Your task to perform on an android device: Open accessibility settings Image 0: 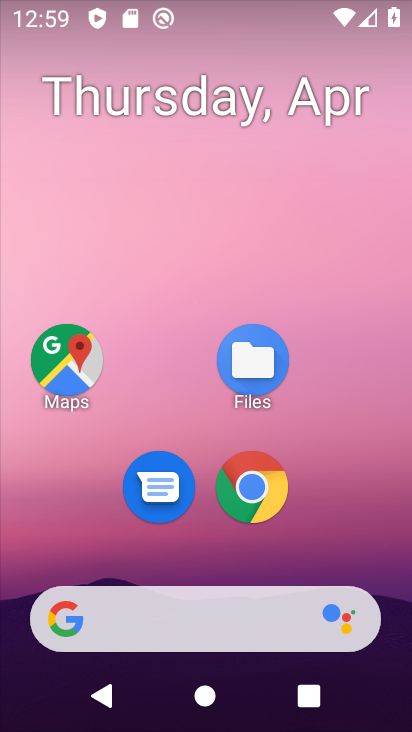
Step 0: drag from (392, 533) to (388, 217)
Your task to perform on an android device: Open accessibility settings Image 1: 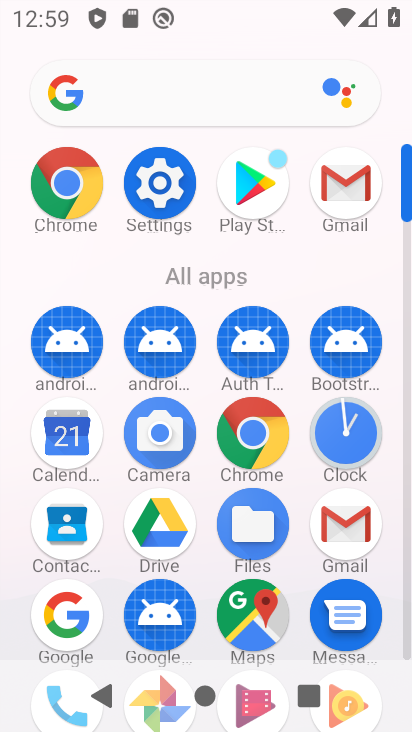
Step 1: click (154, 180)
Your task to perform on an android device: Open accessibility settings Image 2: 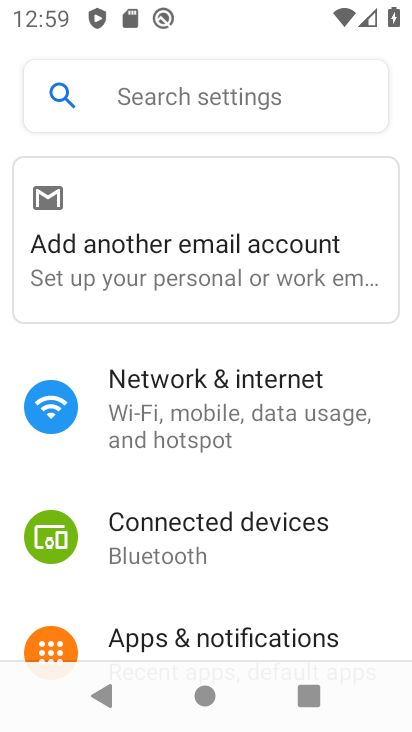
Step 2: drag from (339, 513) to (348, 318)
Your task to perform on an android device: Open accessibility settings Image 3: 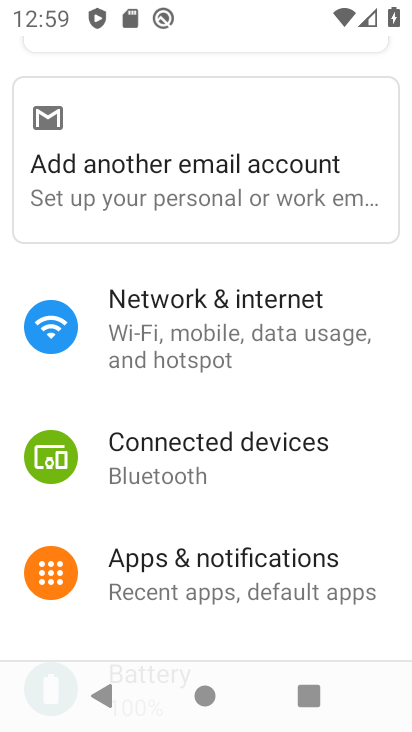
Step 3: drag from (335, 496) to (364, 267)
Your task to perform on an android device: Open accessibility settings Image 4: 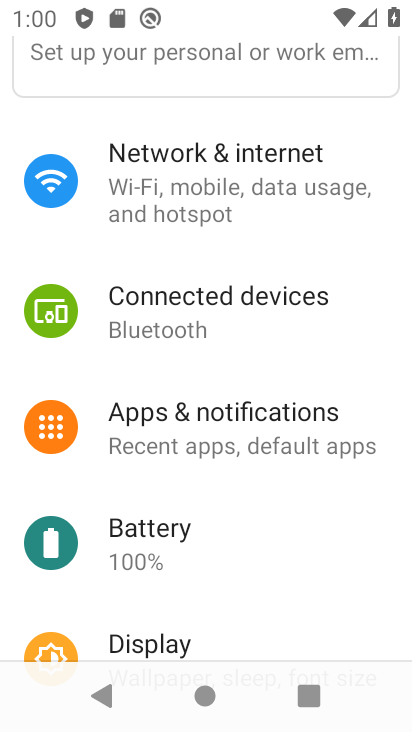
Step 4: drag from (300, 574) to (289, 310)
Your task to perform on an android device: Open accessibility settings Image 5: 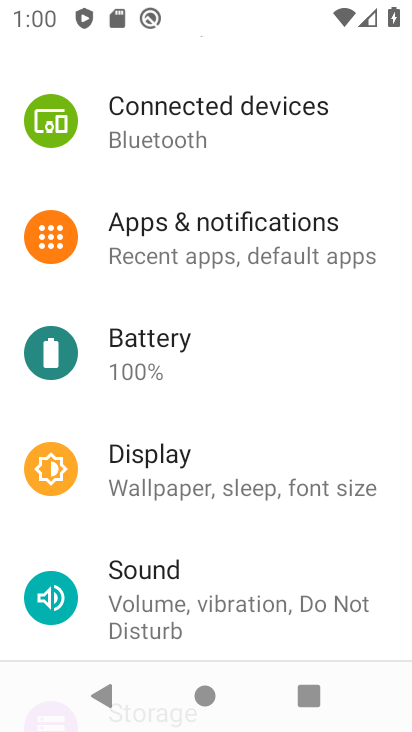
Step 5: drag from (276, 540) to (308, 285)
Your task to perform on an android device: Open accessibility settings Image 6: 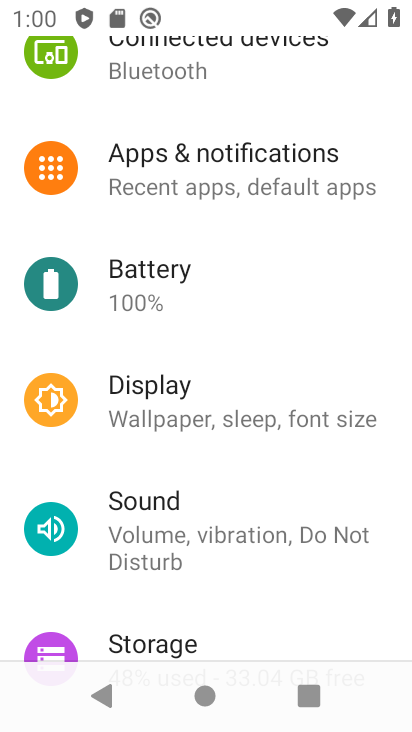
Step 6: drag from (277, 540) to (277, 310)
Your task to perform on an android device: Open accessibility settings Image 7: 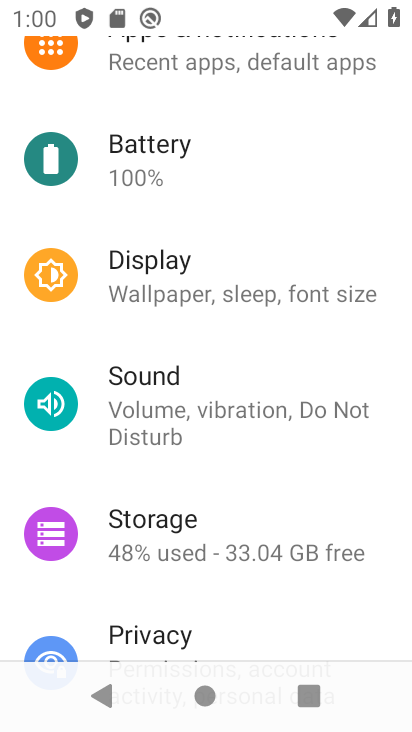
Step 7: drag from (266, 510) to (266, 311)
Your task to perform on an android device: Open accessibility settings Image 8: 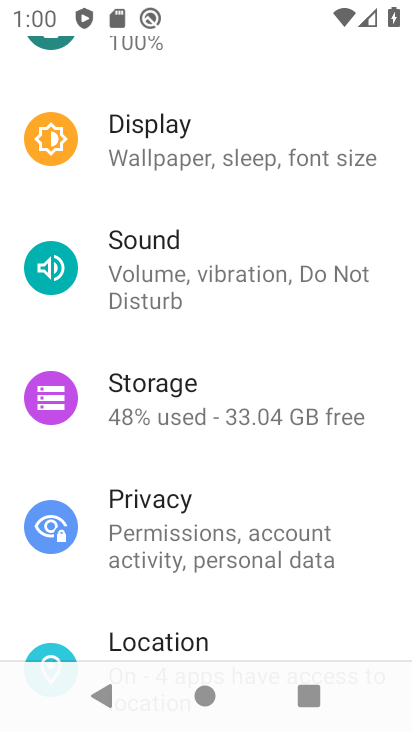
Step 8: drag from (254, 592) to (247, 251)
Your task to perform on an android device: Open accessibility settings Image 9: 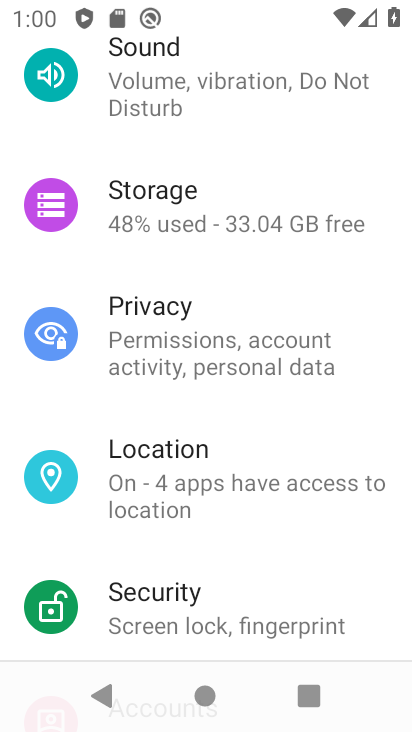
Step 9: drag from (231, 539) to (248, 290)
Your task to perform on an android device: Open accessibility settings Image 10: 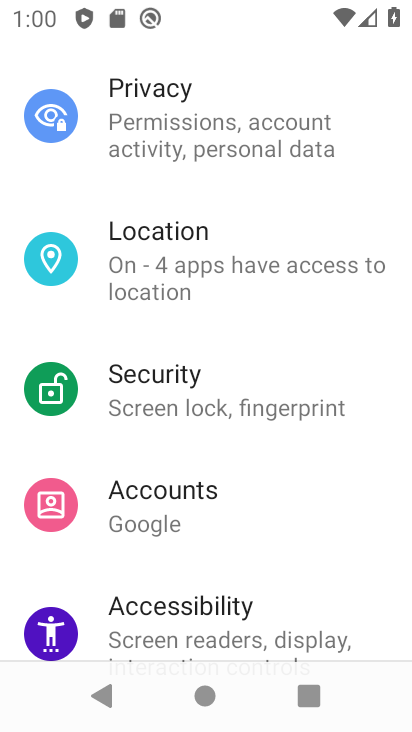
Step 10: click (206, 613)
Your task to perform on an android device: Open accessibility settings Image 11: 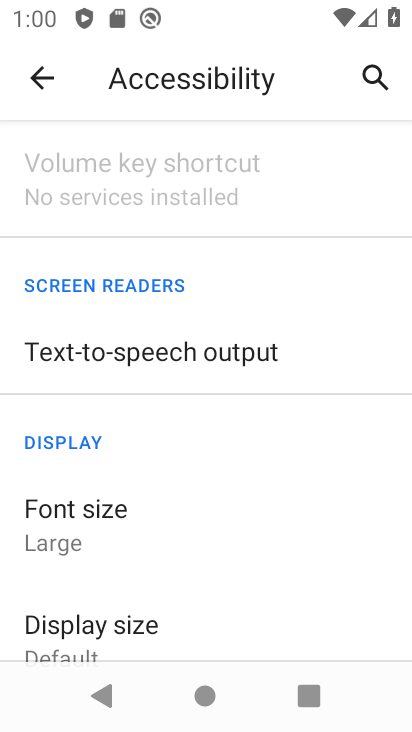
Step 11: task complete